Your task to perform on an android device: add a label to a message in the gmail app Image 0: 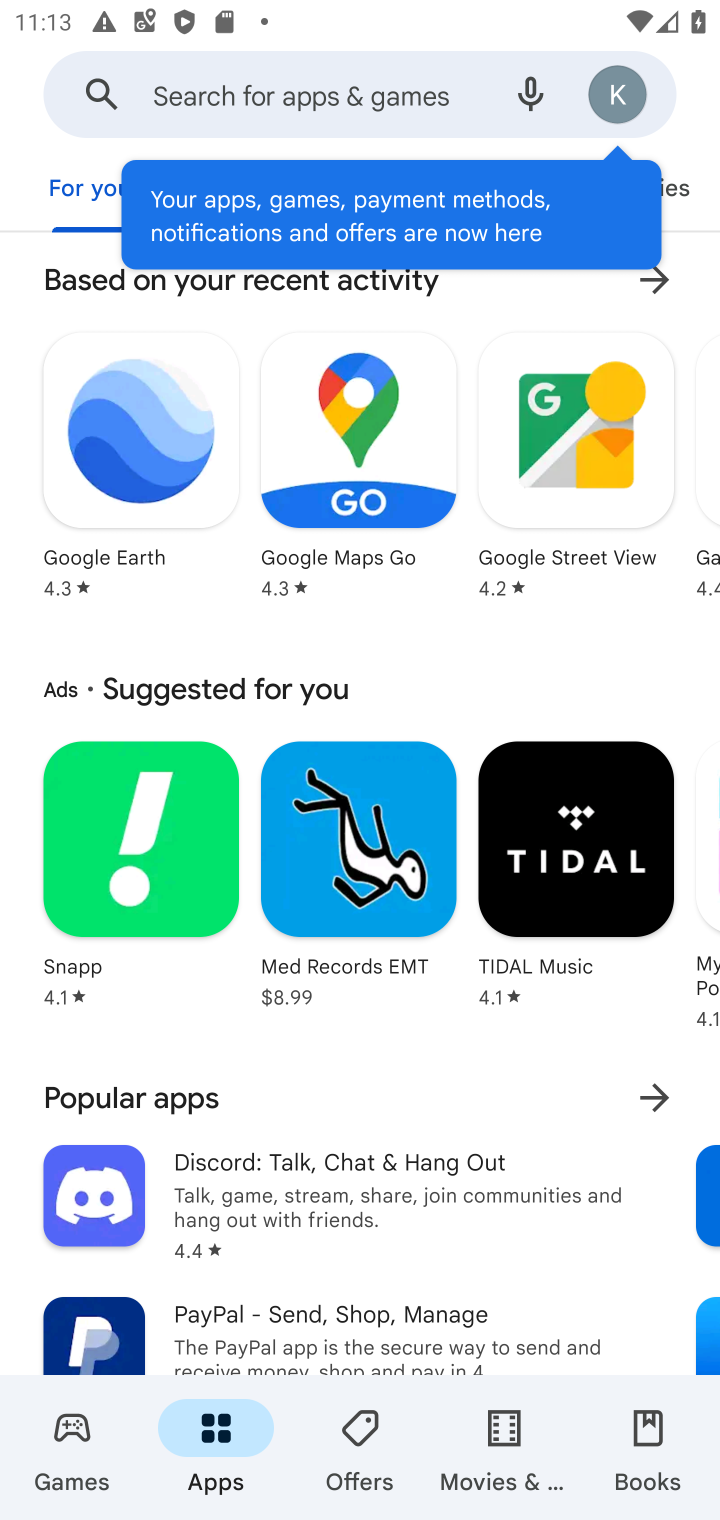
Step 0: press home button
Your task to perform on an android device: add a label to a message in the gmail app Image 1: 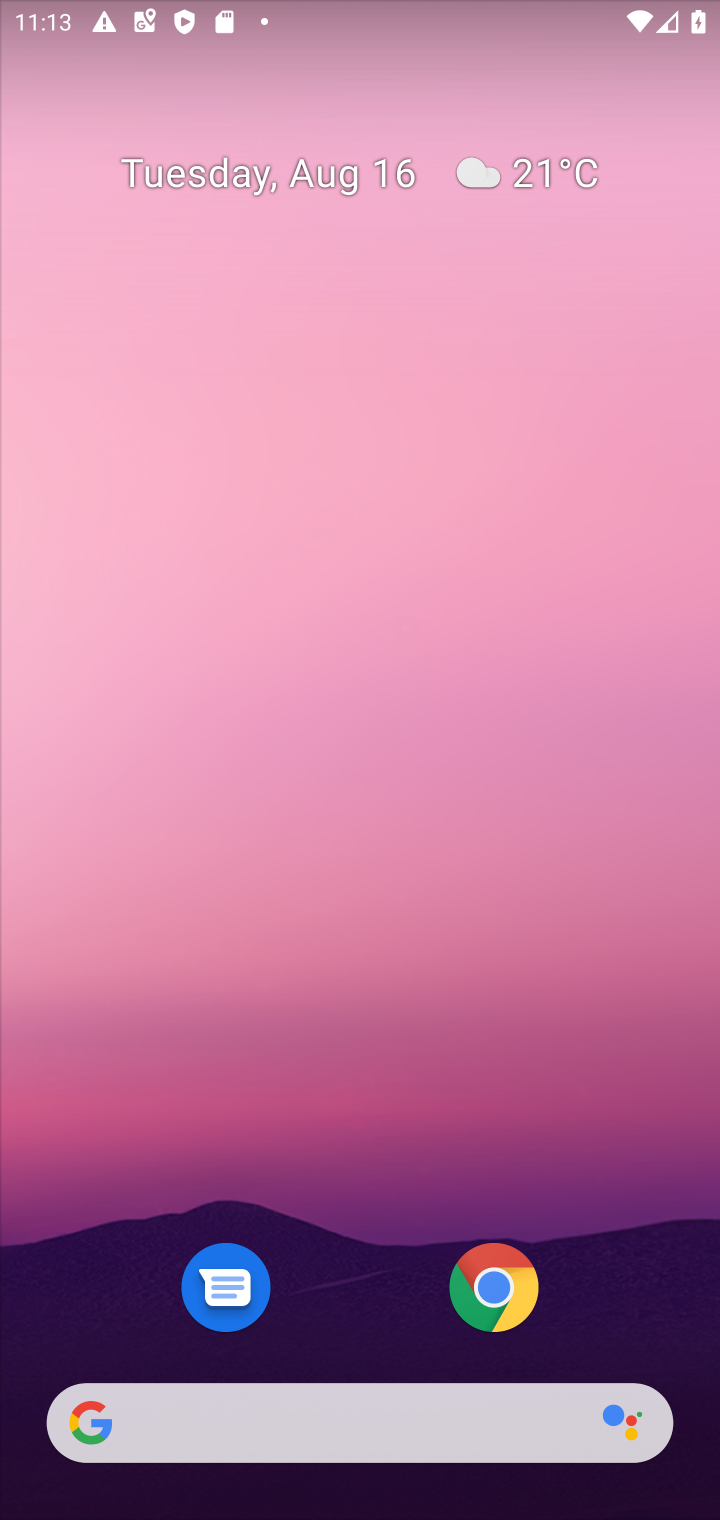
Step 1: drag from (672, 1325) to (552, 306)
Your task to perform on an android device: add a label to a message in the gmail app Image 2: 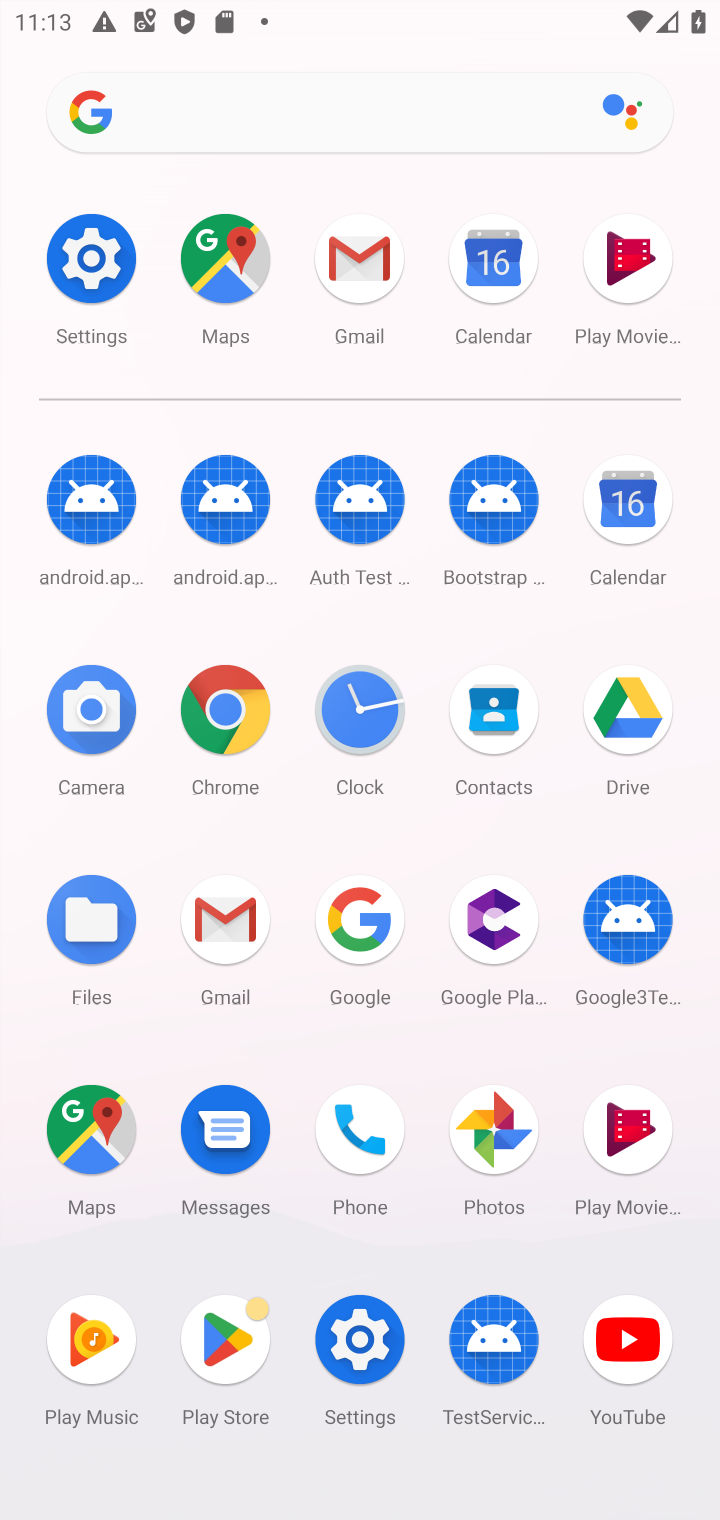
Step 2: click (226, 924)
Your task to perform on an android device: add a label to a message in the gmail app Image 3: 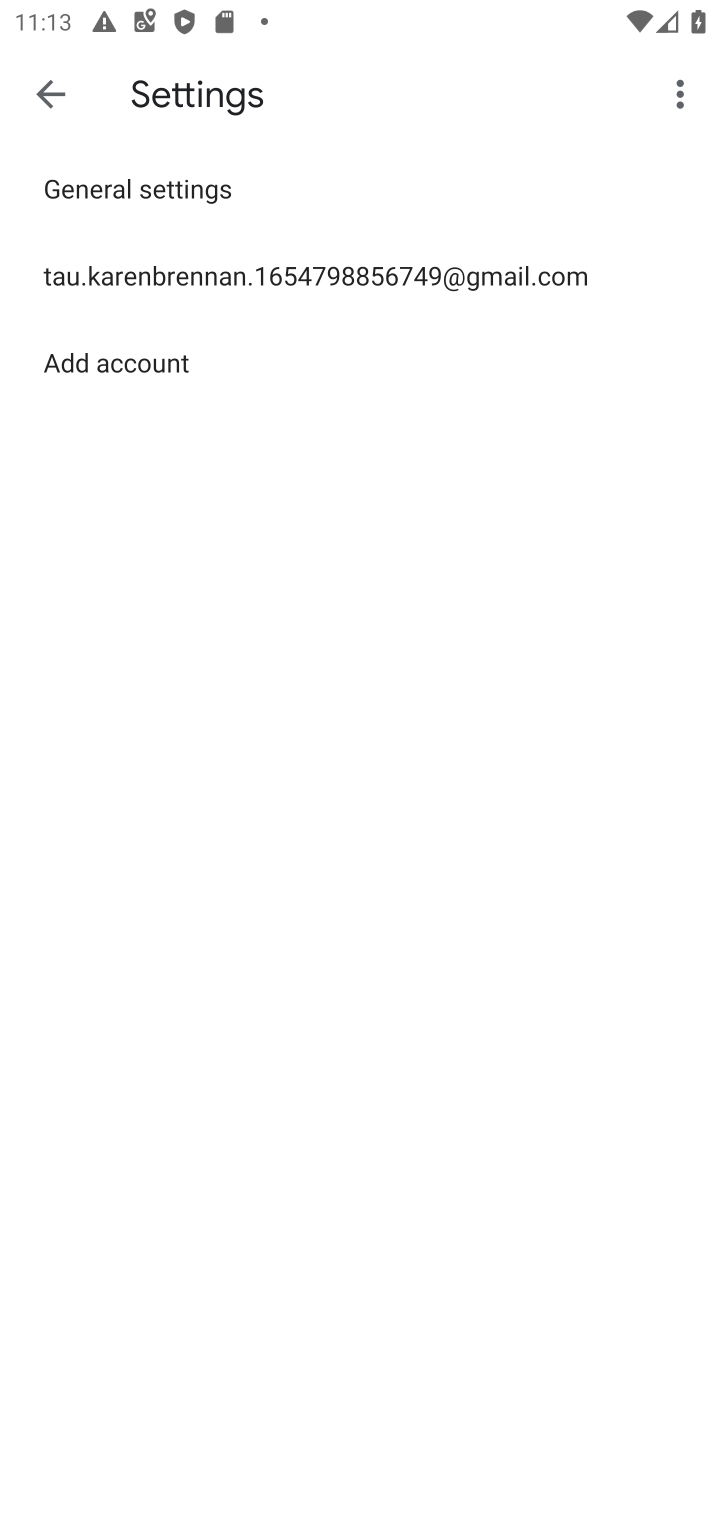
Step 3: press back button
Your task to perform on an android device: add a label to a message in the gmail app Image 4: 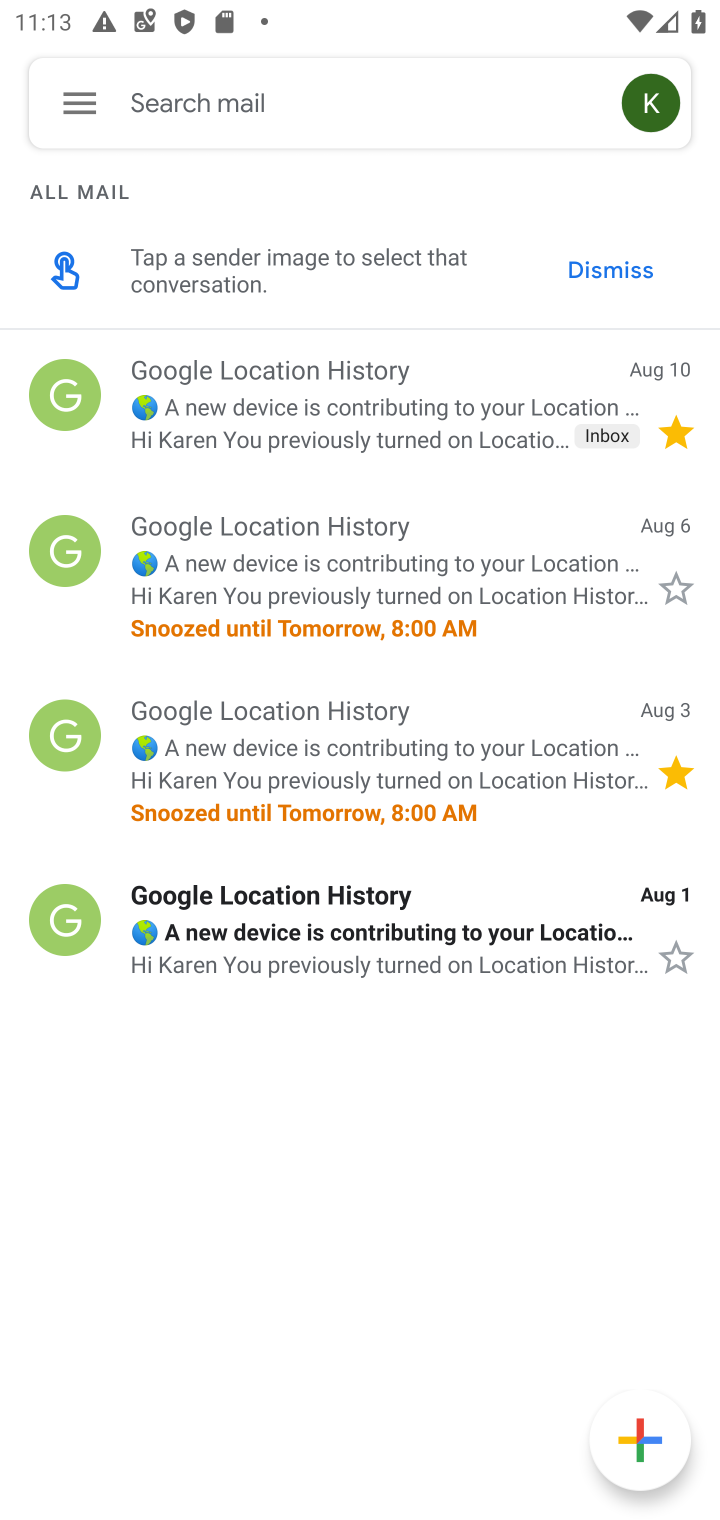
Step 4: click (320, 412)
Your task to perform on an android device: add a label to a message in the gmail app Image 5: 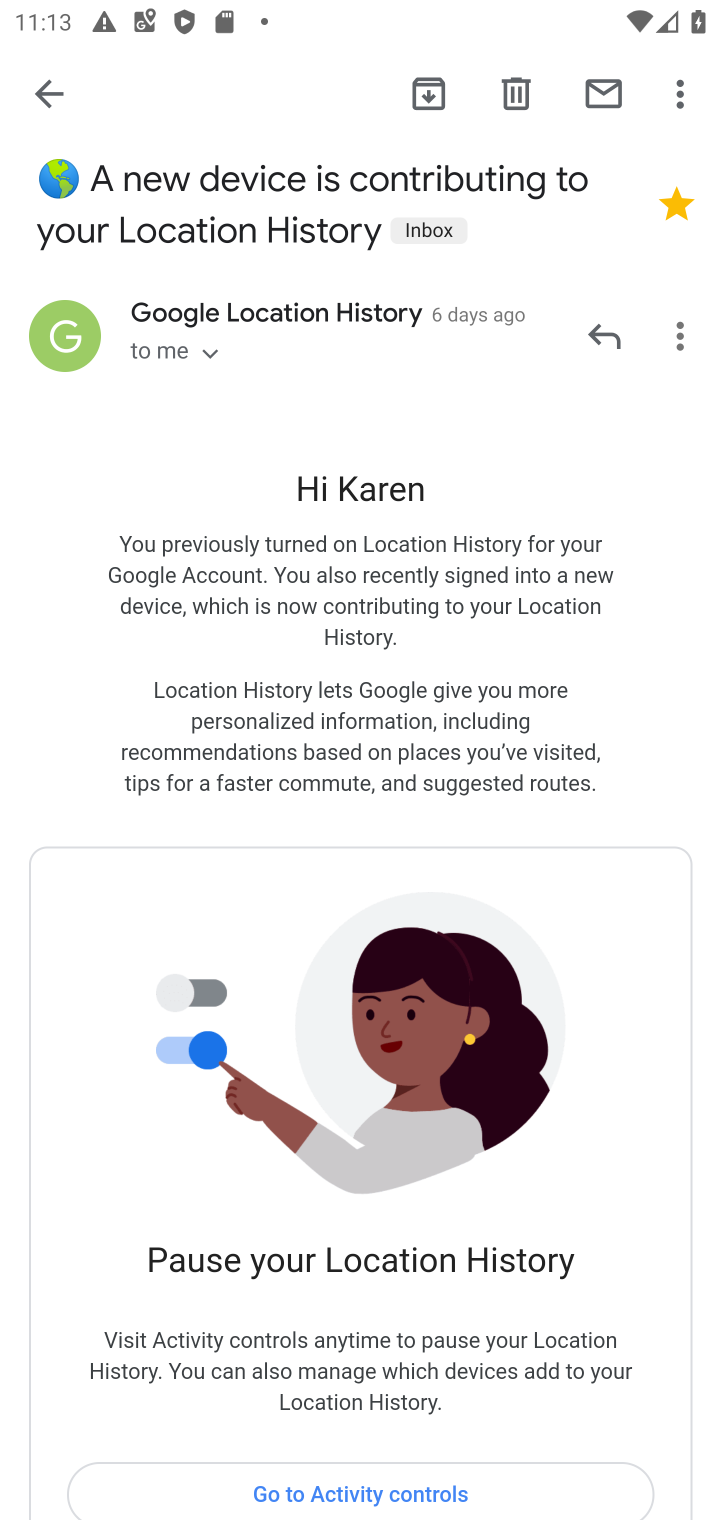
Step 5: click (671, 101)
Your task to perform on an android device: add a label to a message in the gmail app Image 6: 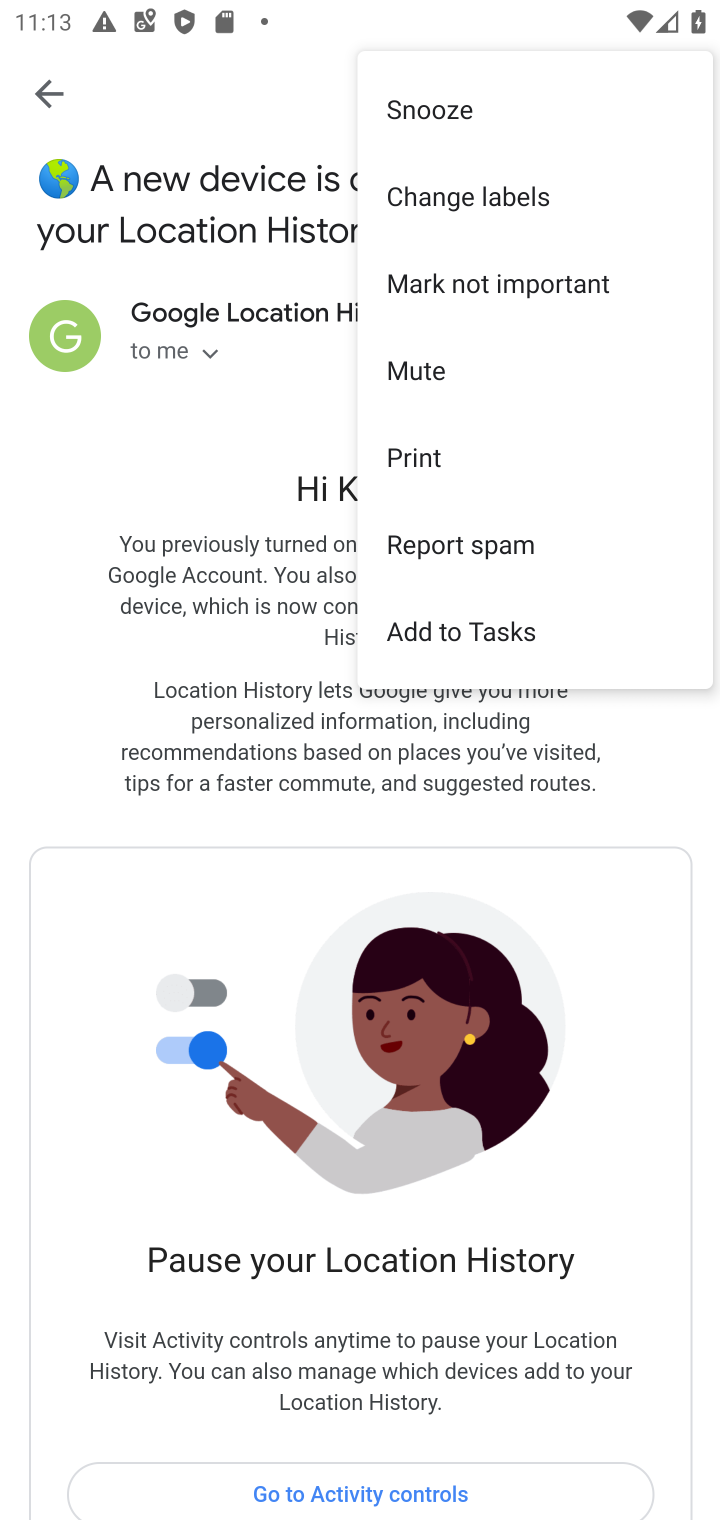
Step 6: click (440, 193)
Your task to perform on an android device: add a label to a message in the gmail app Image 7: 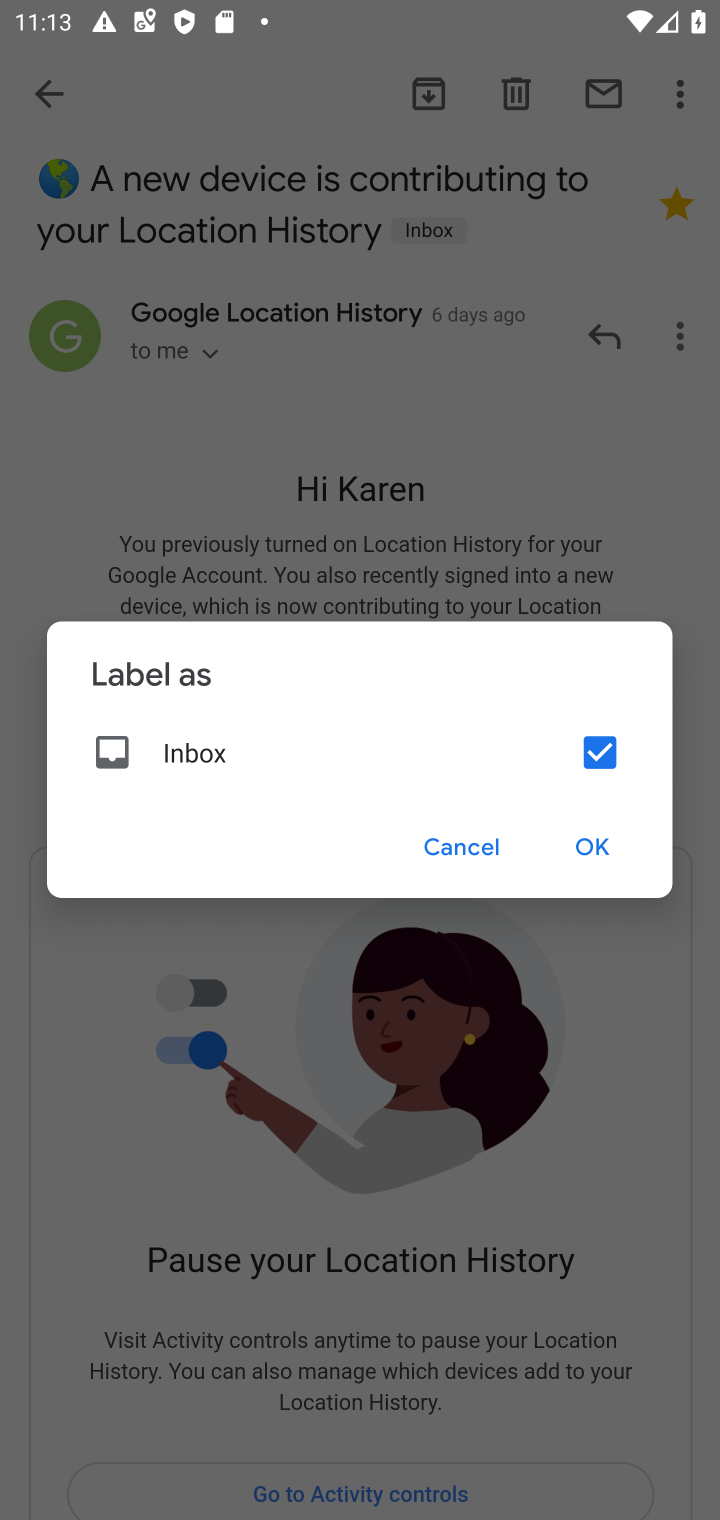
Step 7: click (584, 840)
Your task to perform on an android device: add a label to a message in the gmail app Image 8: 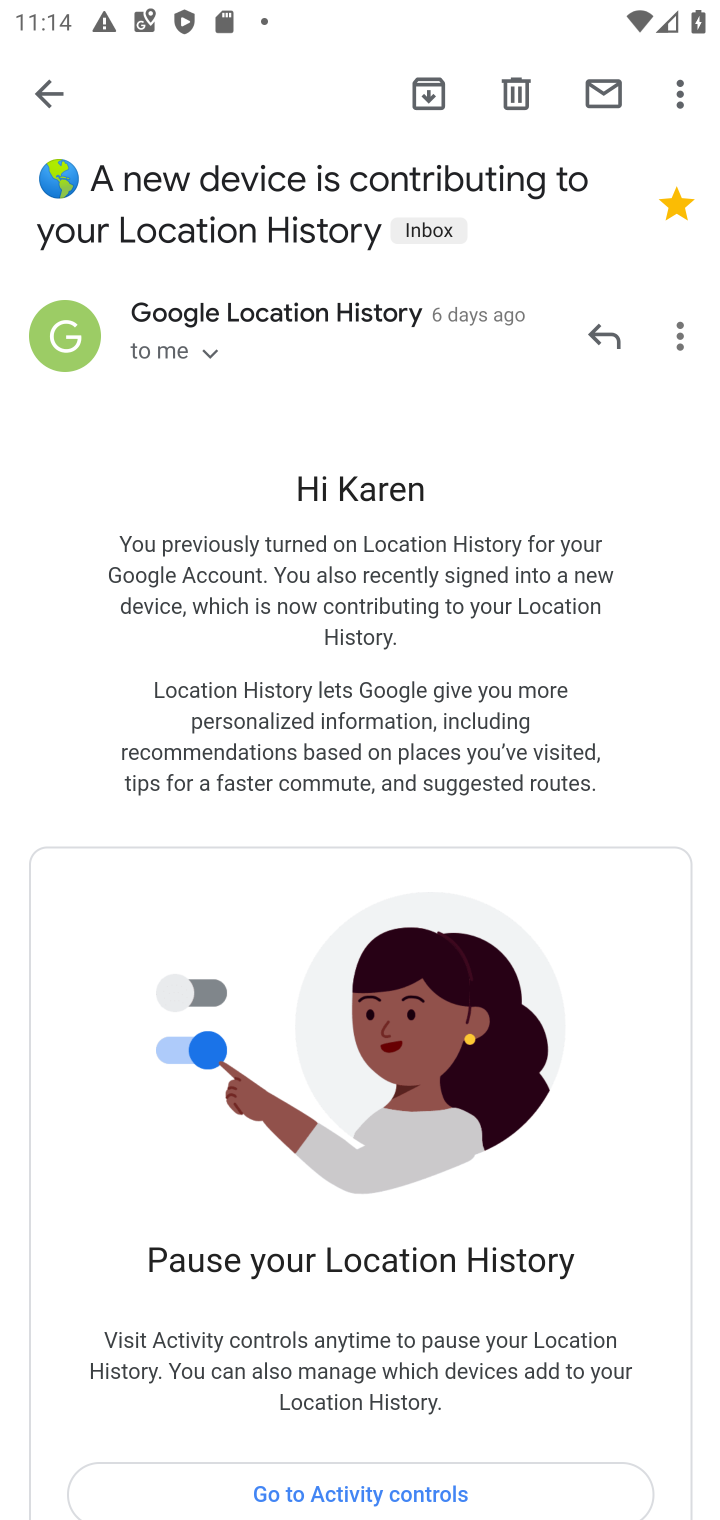
Step 8: task complete